Your task to perform on an android device: Show me productivity apps on the Play Store Image 0: 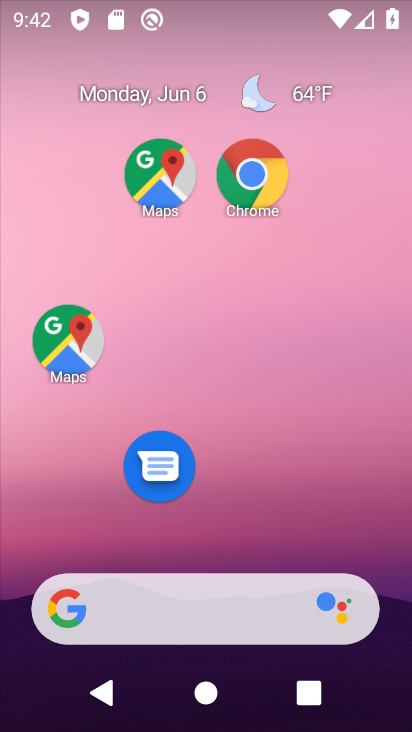
Step 0: drag from (253, 719) to (142, 102)
Your task to perform on an android device: Show me productivity apps on the Play Store Image 1: 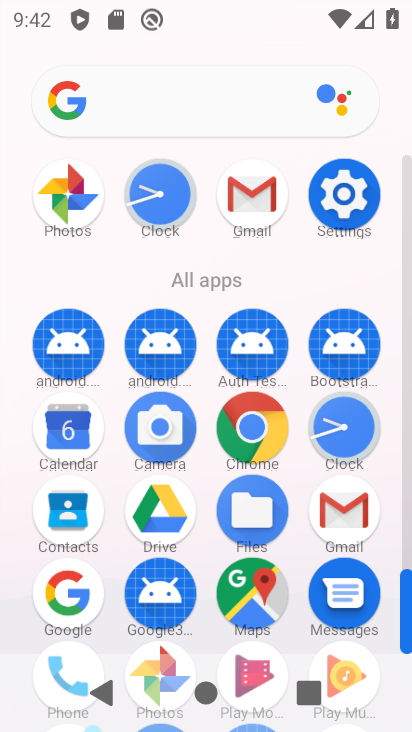
Step 1: drag from (221, 552) to (213, 278)
Your task to perform on an android device: Show me productivity apps on the Play Store Image 2: 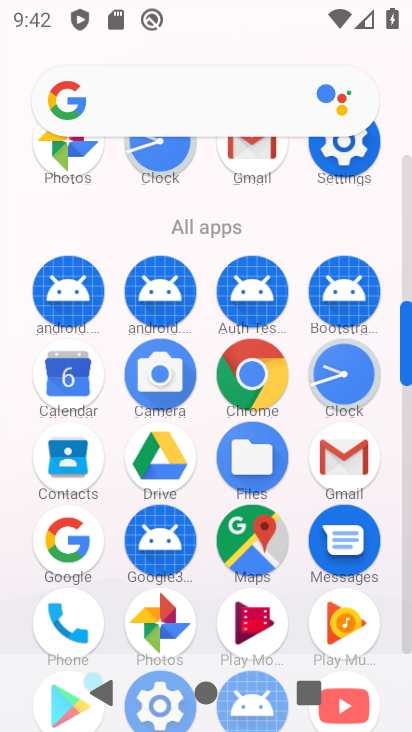
Step 2: drag from (176, 462) to (180, 201)
Your task to perform on an android device: Show me productivity apps on the Play Store Image 3: 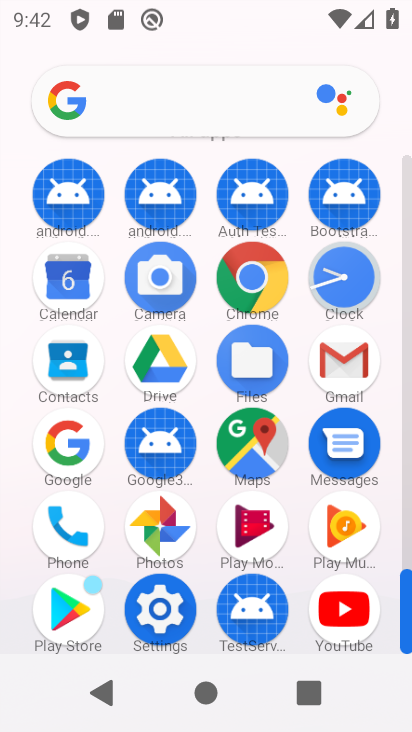
Step 3: click (63, 620)
Your task to perform on an android device: Show me productivity apps on the Play Store Image 4: 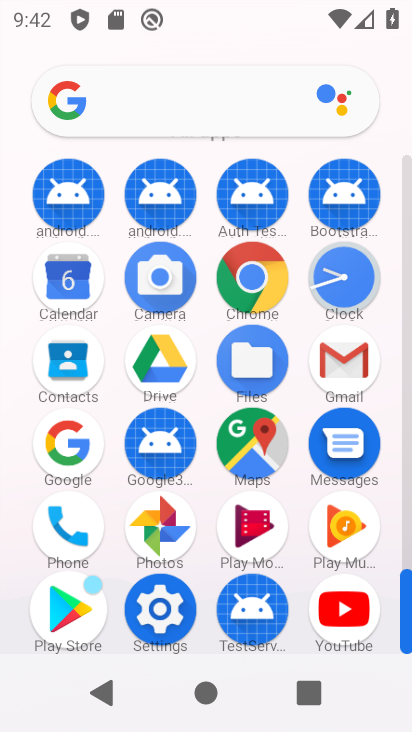
Step 4: click (63, 620)
Your task to perform on an android device: Show me productivity apps on the Play Store Image 5: 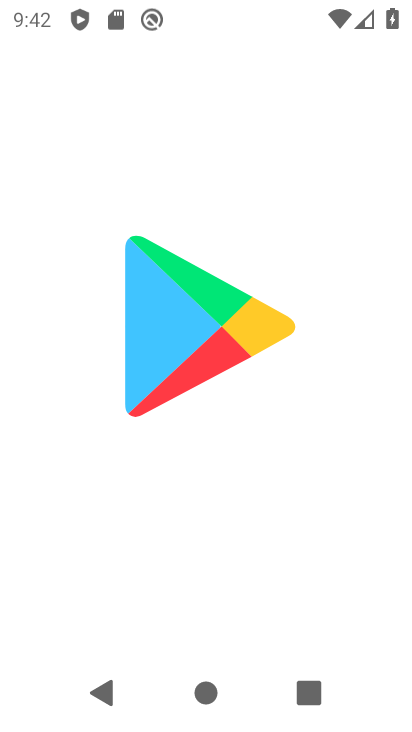
Step 5: click (63, 620)
Your task to perform on an android device: Show me productivity apps on the Play Store Image 6: 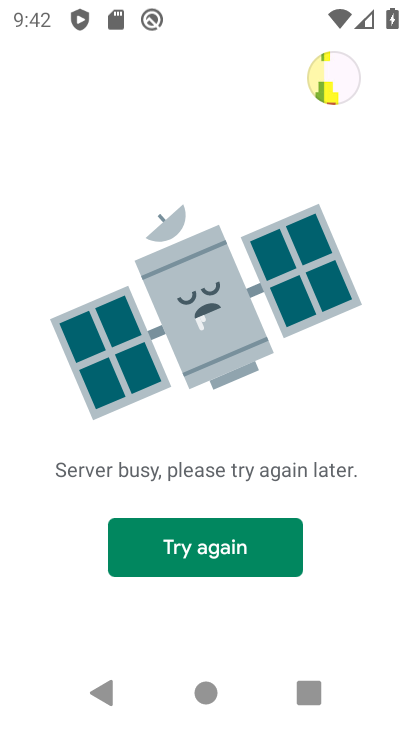
Step 6: task complete